Your task to perform on an android device: turn off priority inbox in the gmail app Image 0: 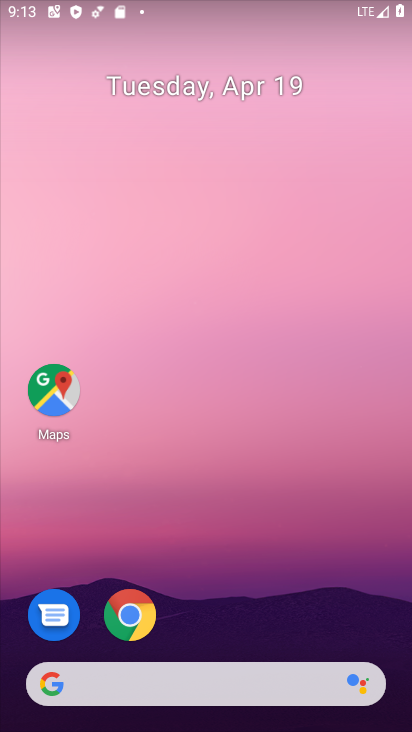
Step 0: drag from (323, 636) to (253, 118)
Your task to perform on an android device: turn off priority inbox in the gmail app Image 1: 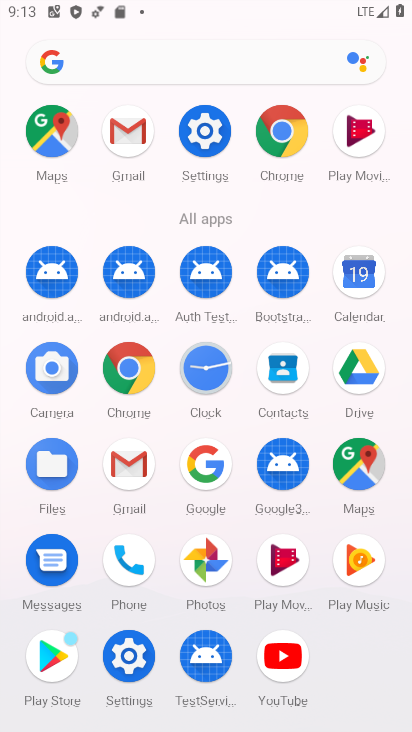
Step 1: click (118, 471)
Your task to perform on an android device: turn off priority inbox in the gmail app Image 2: 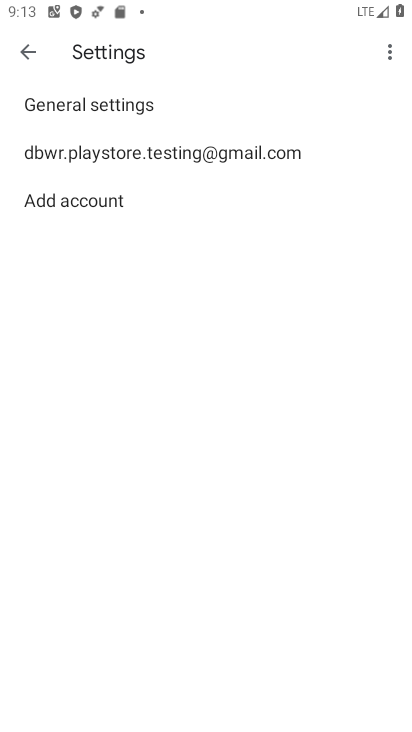
Step 2: click (200, 154)
Your task to perform on an android device: turn off priority inbox in the gmail app Image 3: 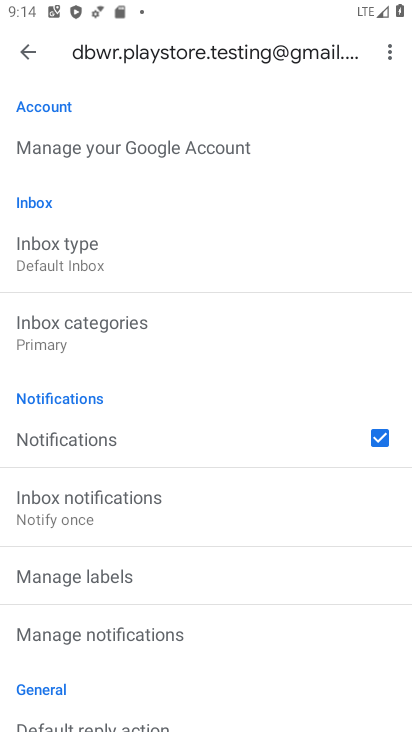
Step 3: click (145, 278)
Your task to perform on an android device: turn off priority inbox in the gmail app Image 4: 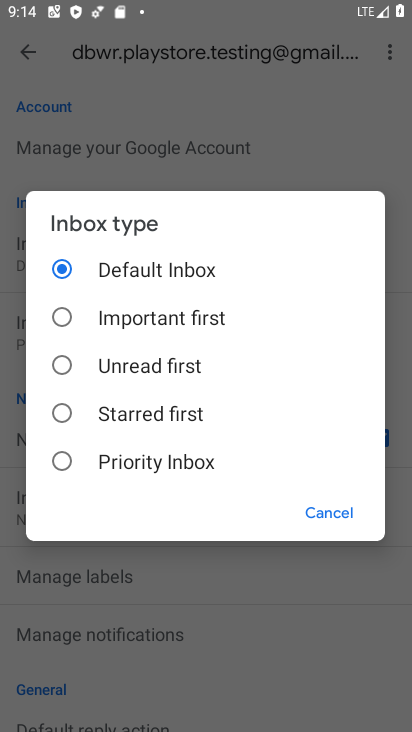
Step 4: task complete